Your task to perform on an android device: Go to Maps Image 0: 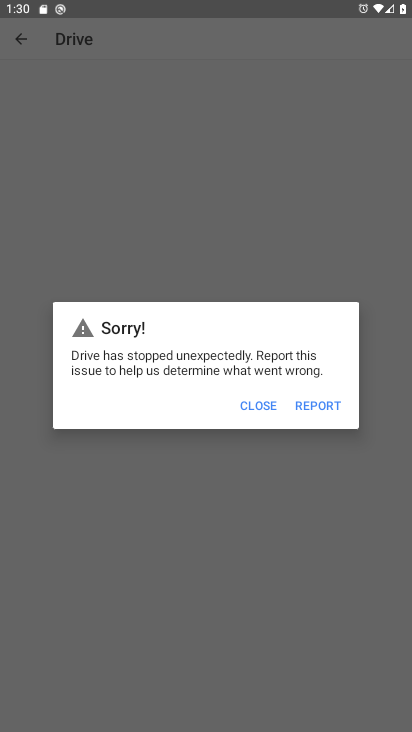
Step 0: press home button
Your task to perform on an android device: Go to Maps Image 1: 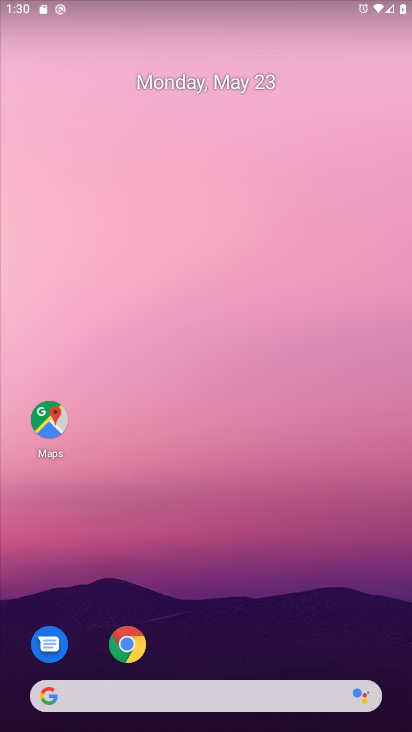
Step 1: click (54, 432)
Your task to perform on an android device: Go to Maps Image 2: 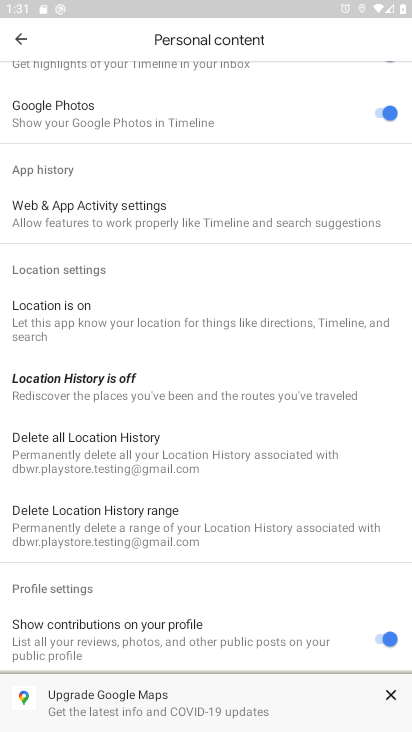
Step 2: click (16, 31)
Your task to perform on an android device: Go to Maps Image 3: 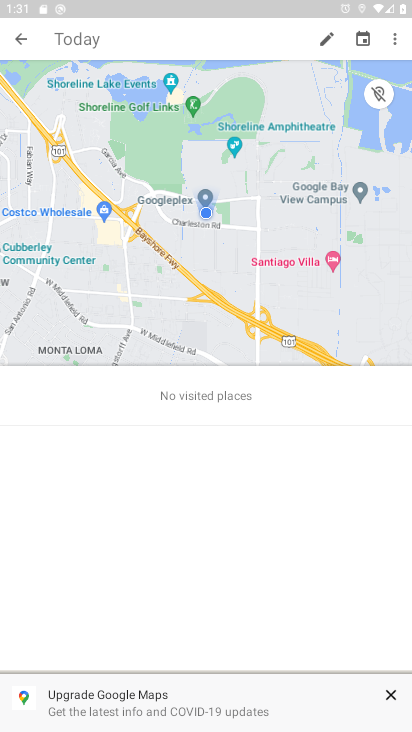
Step 3: task complete